Your task to perform on an android device: Open calendar and show me the second week of next month Image 0: 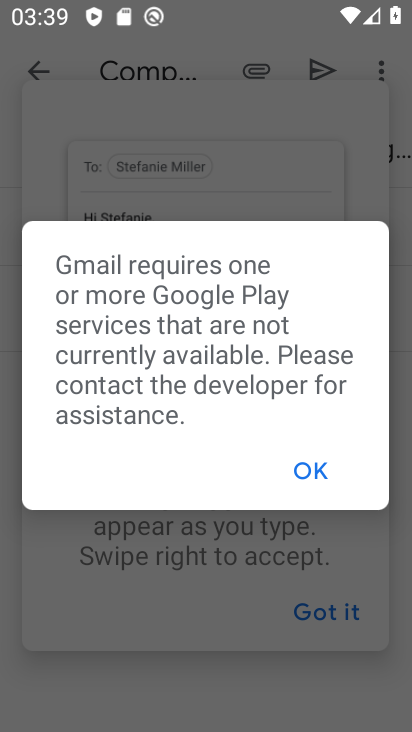
Step 0: press home button
Your task to perform on an android device: Open calendar and show me the second week of next month Image 1: 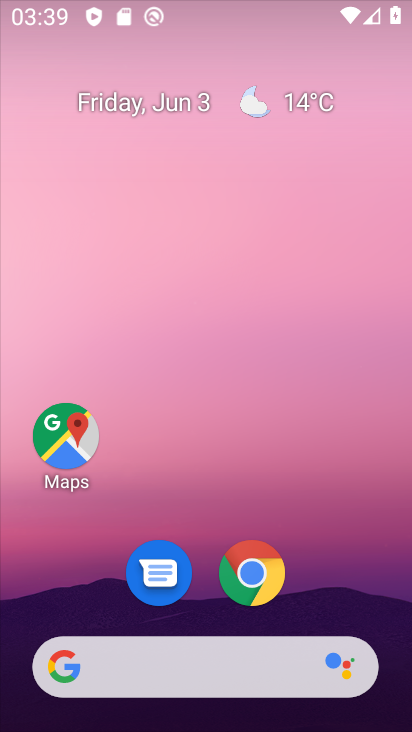
Step 1: drag from (302, 614) to (376, 37)
Your task to perform on an android device: Open calendar and show me the second week of next month Image 2: 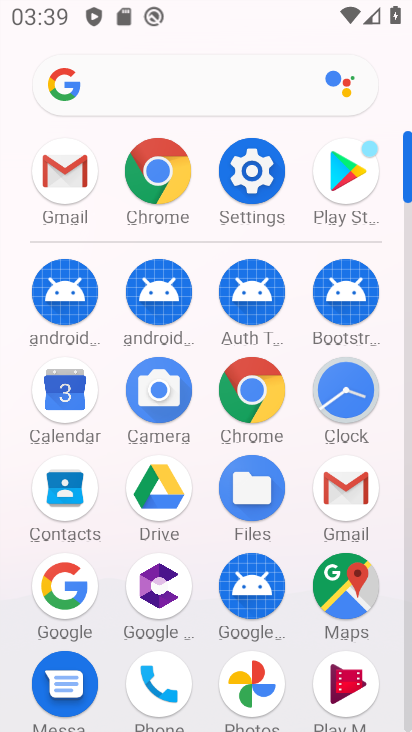
Step 2: click (82, 403)
Your task to perform on an android device: Open calendar and show me the second week of next month Image 3: 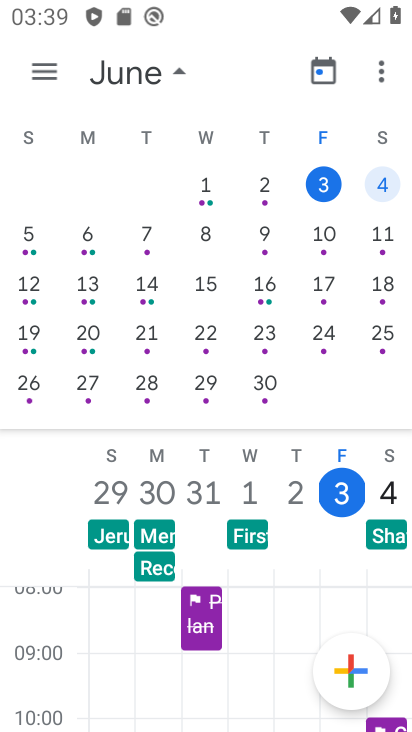
Step 3: click (216, 233)
Your task to perform on an android device: Open calendar and show me the second week of next month Image 4: 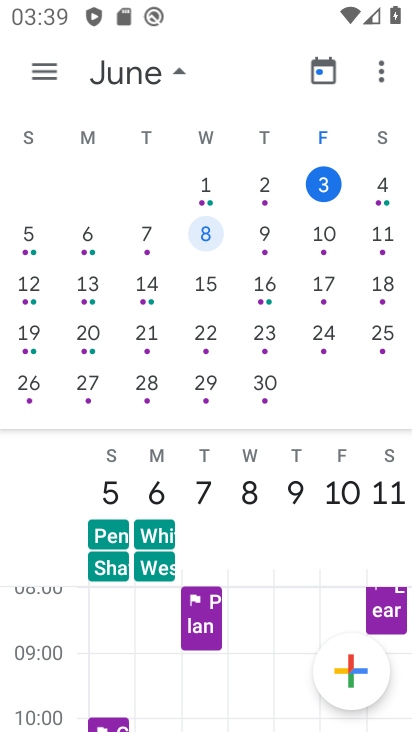
Step 4: click (38, 71)
Your task to perform on an android device: Open calendar and show me the second week of next month Image 5: 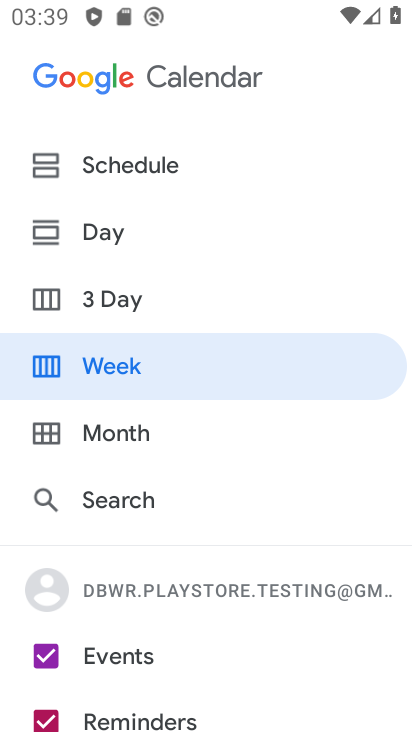
Step 5: click (113, 381)
Your task to perform on an android device: Open calendar and show me the second week of next month Image 6: 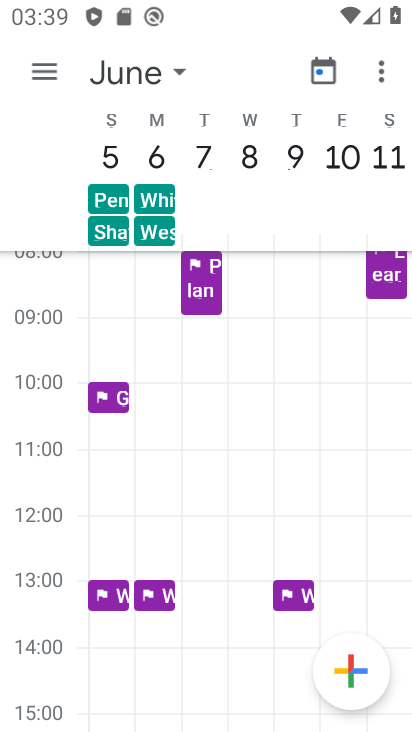
Step 6: task complete